Your task to perform on an android device: Open Yahoo.com Image 0: 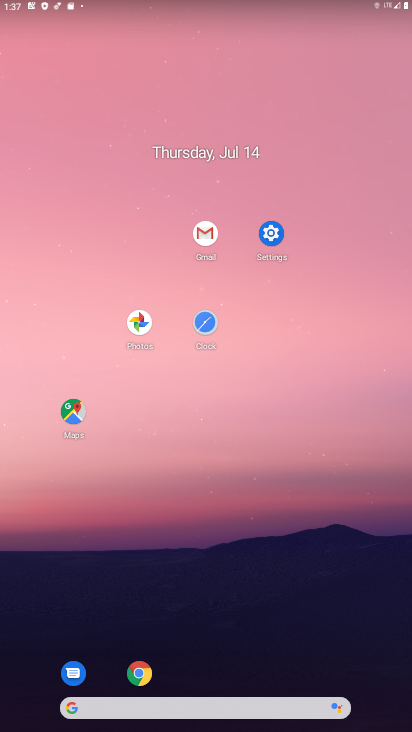
Step 0: click (140, 669)
Your task to perform on an android device: Open Yahoo.com Image 1: 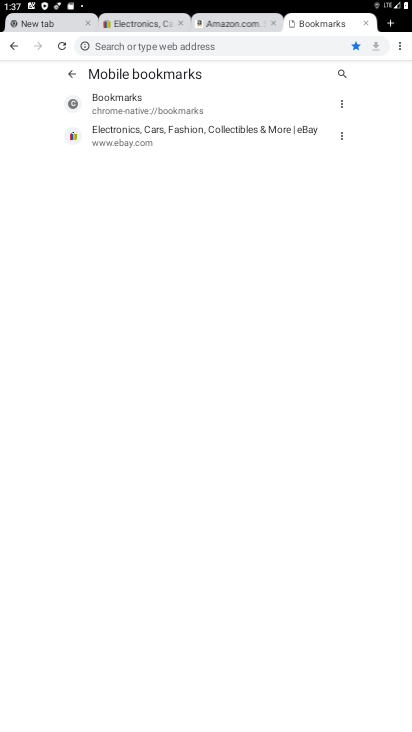
Step 1: click (390, 21)
Your task to perform on an android device: Open Yahoo.com Image 2: 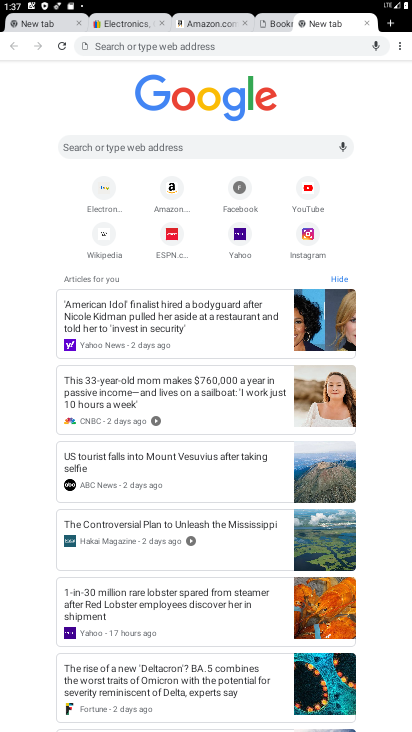
Step 2: click (237, 232)
Your task to perform on an android device: Open Yahoo.com Image 3: 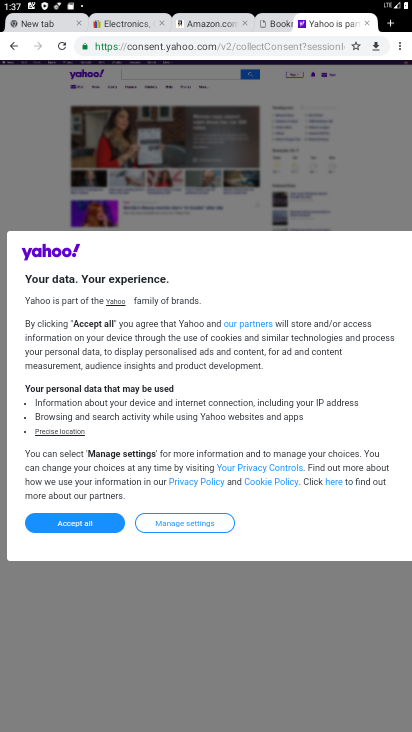
Step 3: click (70, 529)
Your task to perform on an android device: Open Yahoo.com Image 4: 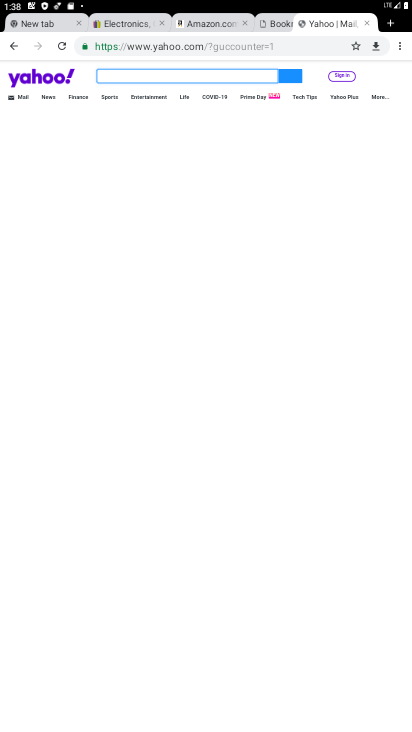
Step 4: task complete